Your task to perform on an android device: Is it going to rain this weekend? Image 0: 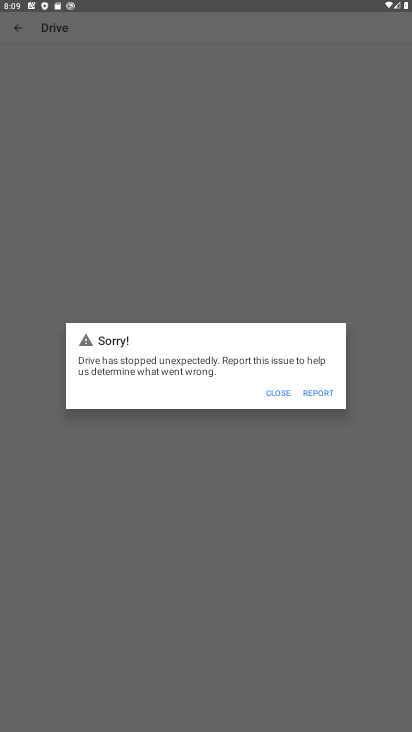
Step 0: press home button
Your task to perform on an android device: Is it going to rain this weekend? Image 1: 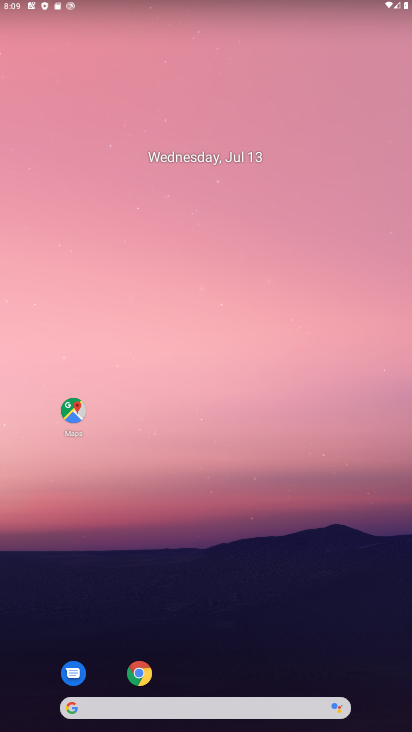
Step 1: drag from (307, 646) to (270, 121)
Your task to perform on an android device: Is it going to rain this weekend? Image 2: 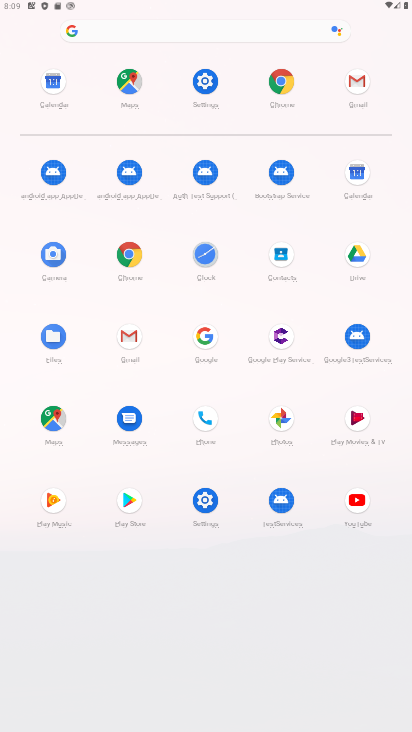
Step 2: click (281, 84)
Your task to perform on an android device: Is it going to rain this weekend? Image 3: 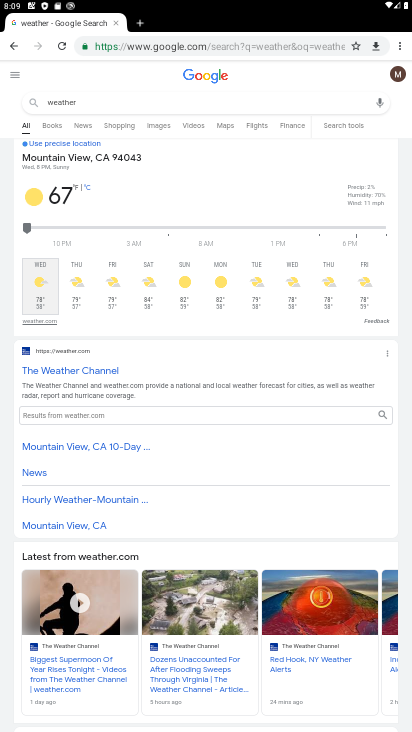
Step 3: click (154, 277)
Your task to perform on an android device: Is it going to rain this weekend? Image 4: 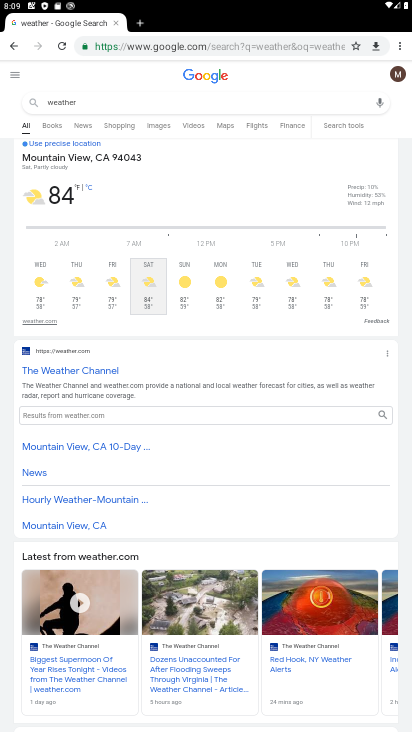
Step 4: task complete